Your task to perform on an android device: Open settings Image 0: 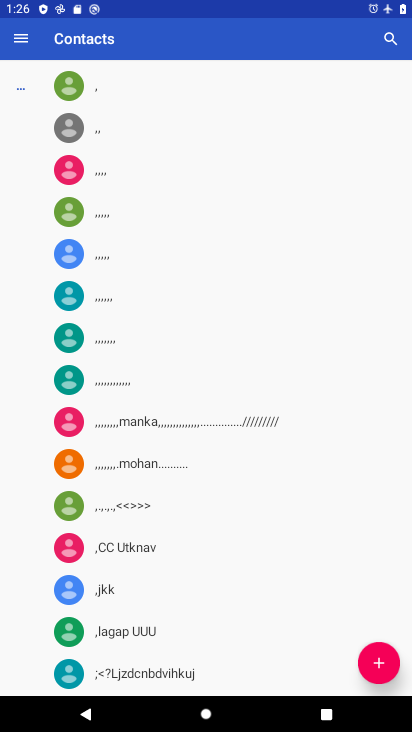
Step 0: type ""
Your task to perform on an android device: Open settings Image 1: 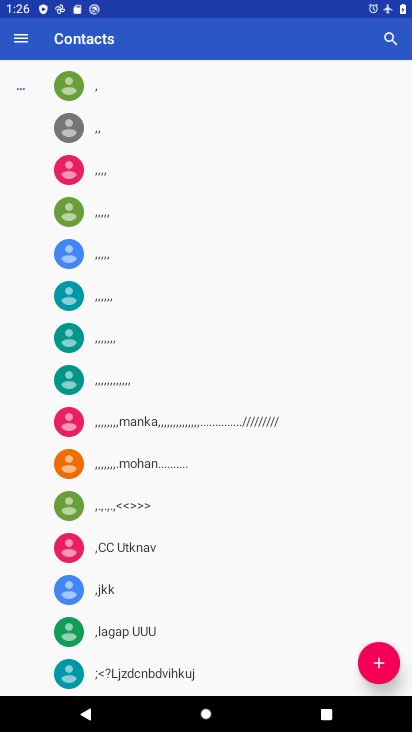
Step 1: press home button
Your task to perform on an android device: Open settings Image 2: 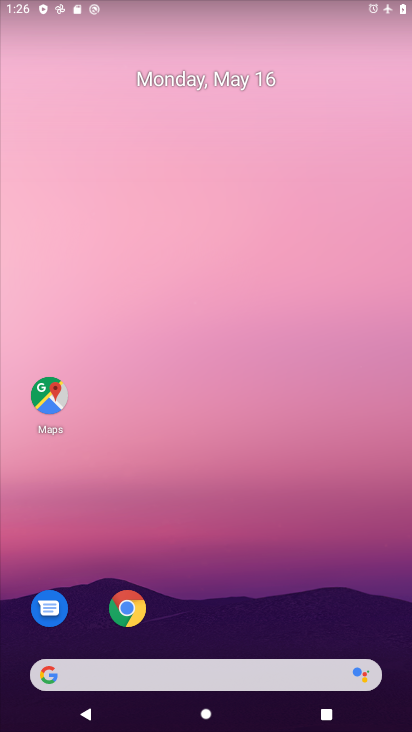
Step 2: drag from (206, 545) to (199, 60)
Your task to perform on an android device: Open settings Image 3: 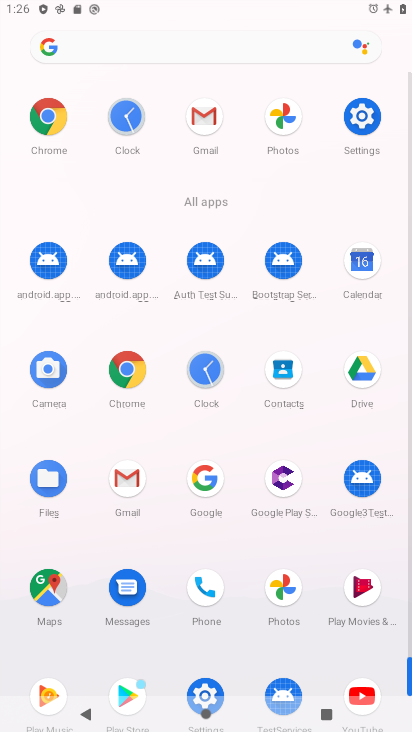
Step 3: click (361, 111)
Your task to perform on an android device: Open settings Image 4: 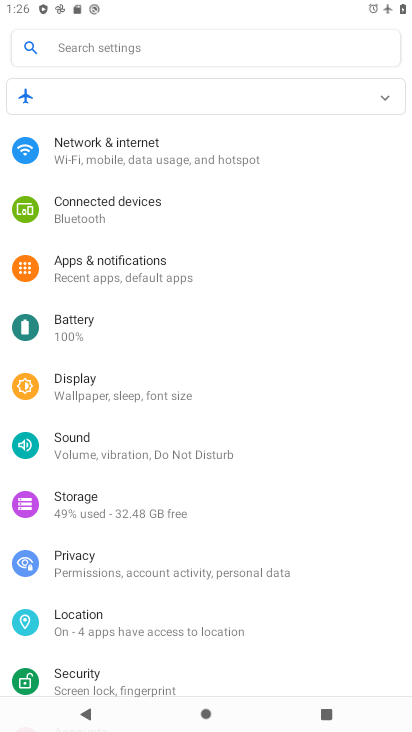
Step 4: task complete